Your task to perform on an android device: Open Chrome and go to the settings page Image 0: 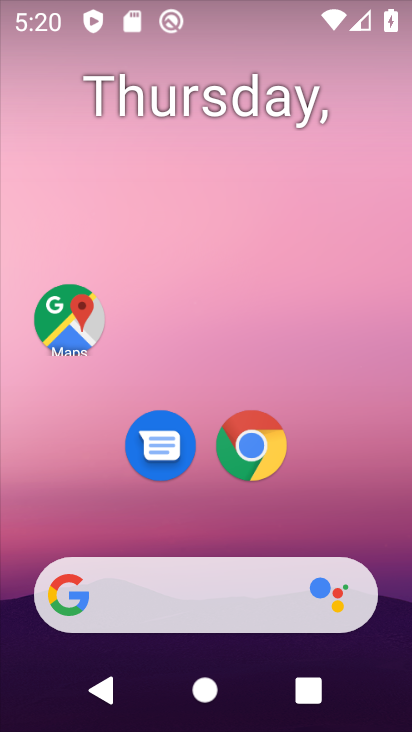
Step 0: drag from (321, 493) to (344, 114)
Your task to perform on an android device: Open Chrome and go to the settings page Image 1: 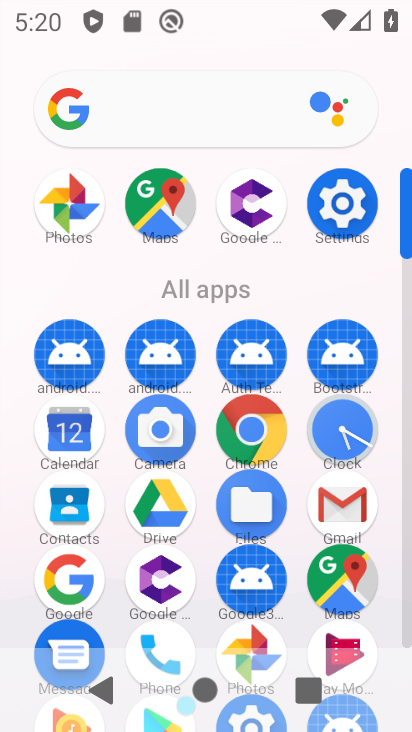
Step 1: click (245, 426)
Your task to perform on an android device: Open Chrome and go to the settings page Image 2: 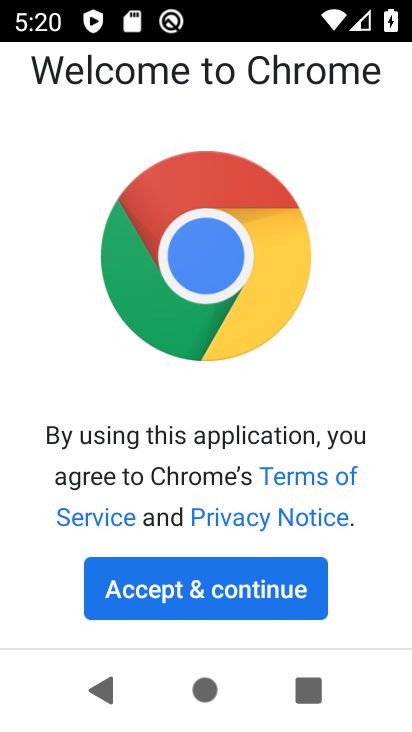
Step 2: click (277, 580)
Your task to perform on an android device: Open Chrome and go to the settings page Image 3: 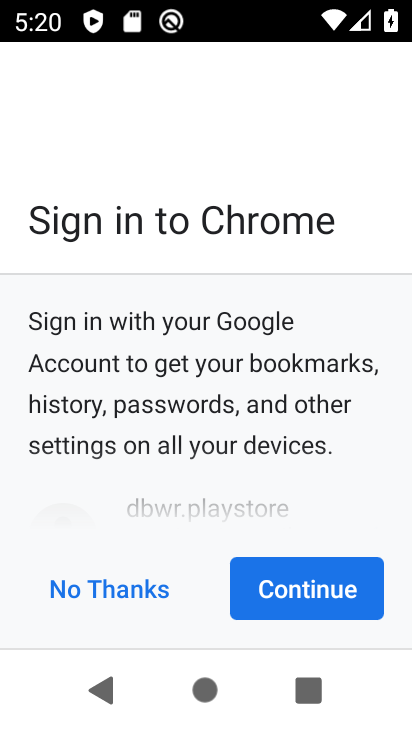
Step 3: click (314, 583)
Your task to perform on an android device: Open Chrome and go to the settings page Image 4: 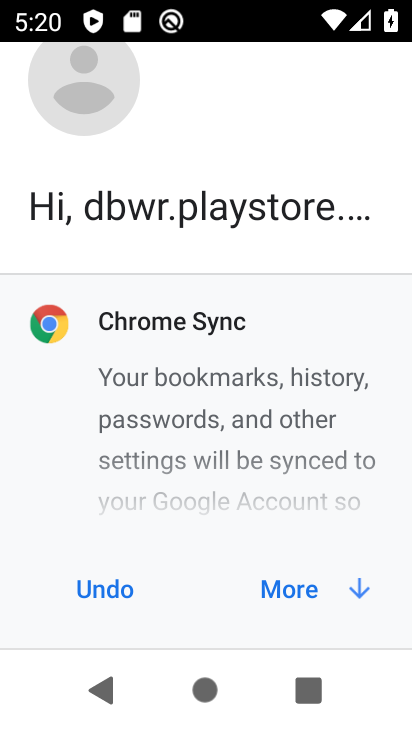
Step 4: click (314, 584)
Your task to perform on an android device: Open Chrome and go to the settings page Image 5: 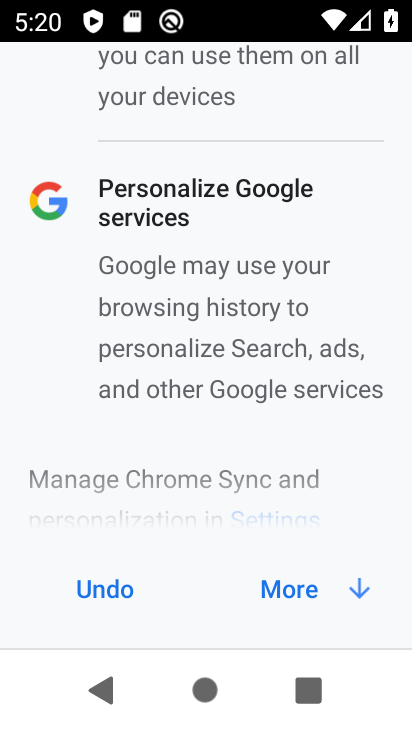
Step 5: click (314, 584)
Your task to perform on an android device: Open Chrome and go to the settings page Image 6: 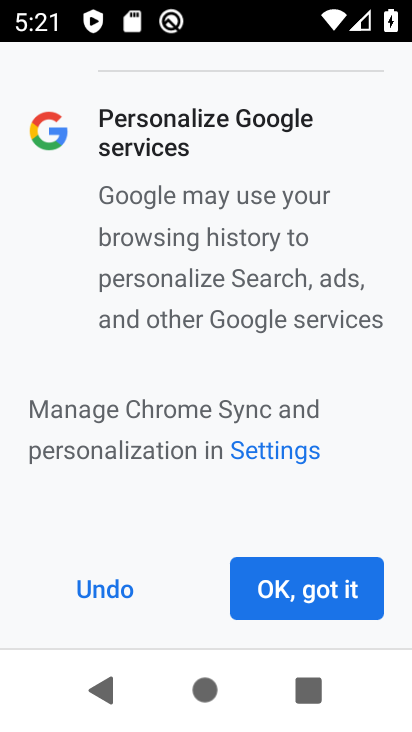
Step 6: click (301, 601)
Your task to perform on an android device: Open Chrome and go to the settings page Image 7: 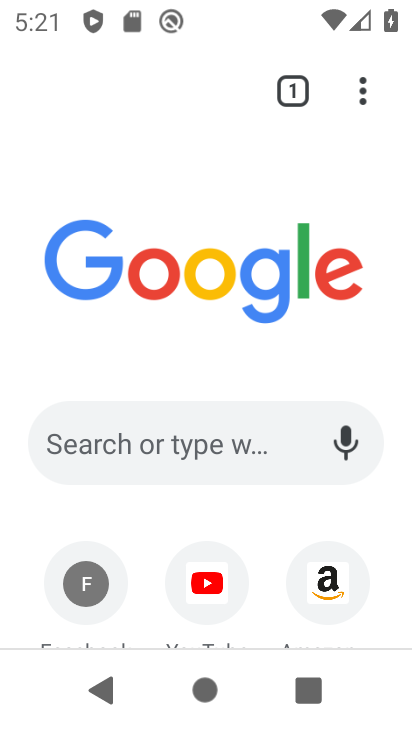
Step 7: task complete